Your task to perform on an android device: Open the calendar and show me this week's events? Image 0: 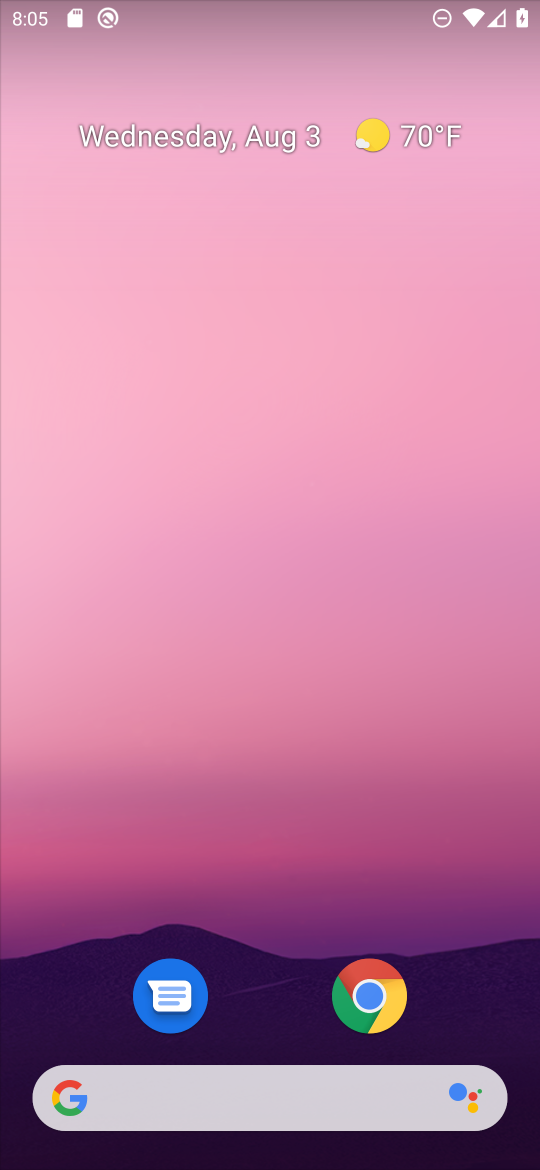
Step 0: drag from (254, 893) to (278, 1)
Your task to perform on an android device: Open the calendar and show me this week's events? Image 1: 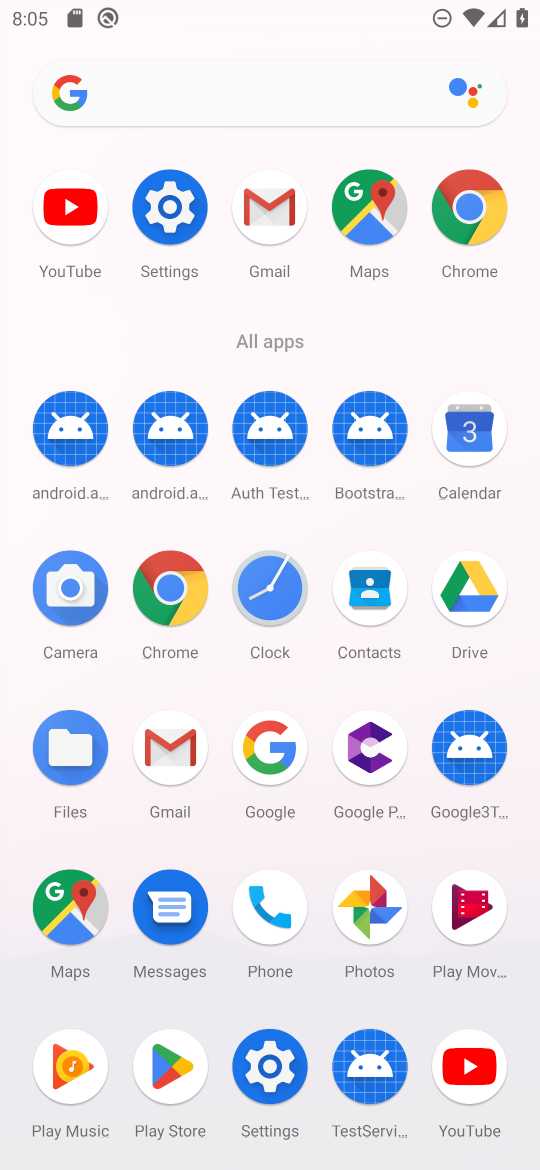
Step 1: click (472, 435)
Your task to perform on an android device: Open the calendar and show me this week's events? Image 2: 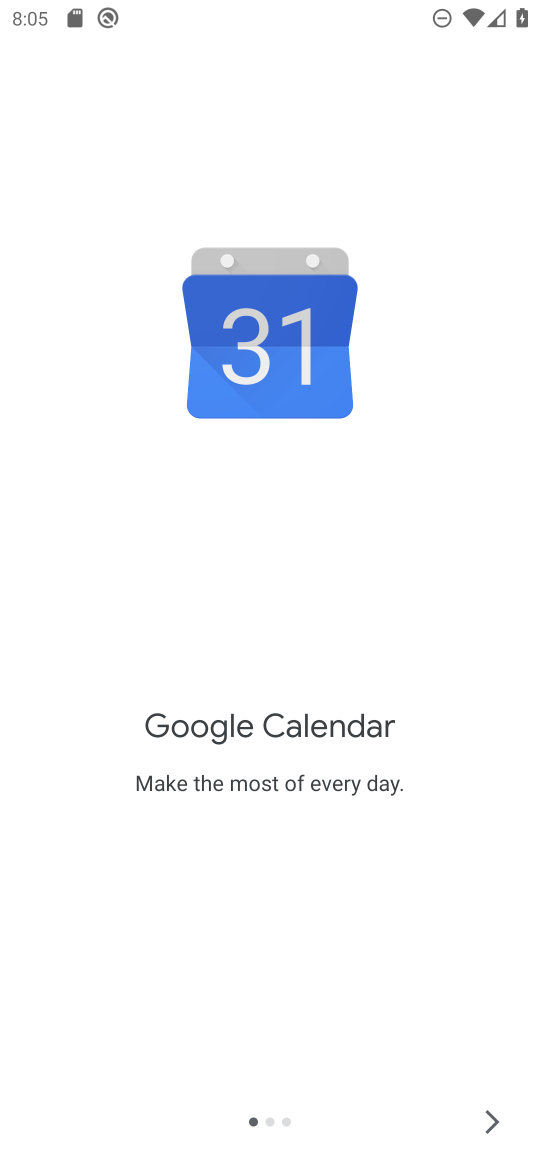
Step 2: click (490, 1114)
Your task to perform on an android device: Open the calendar and show me this week's events? Image 3: 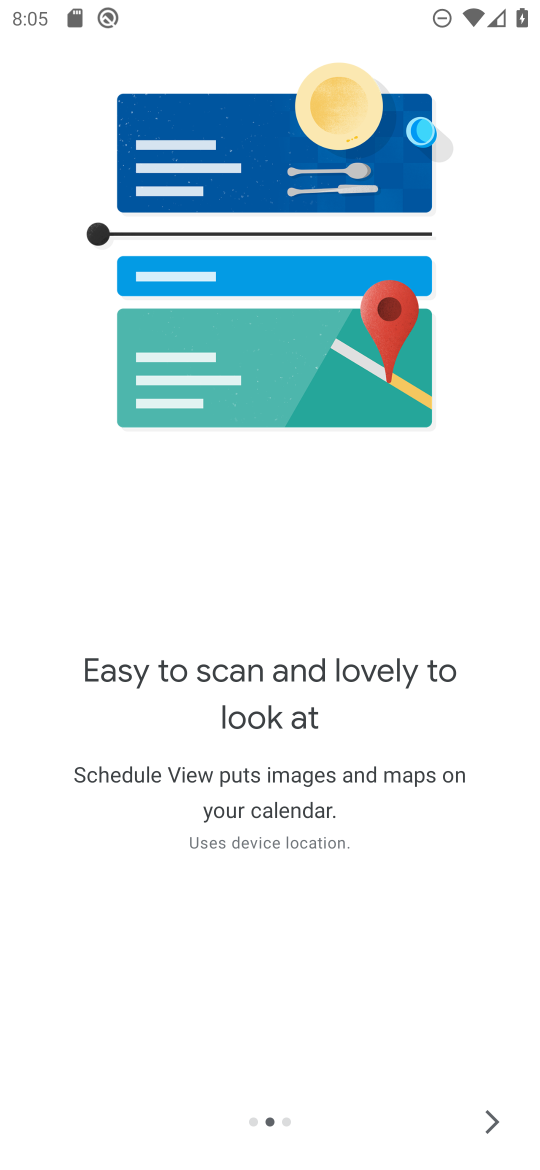
Step 3: click (490, 1114)
Your task to perform on an android device: Open the calendar and show me this week's events? Image 4: 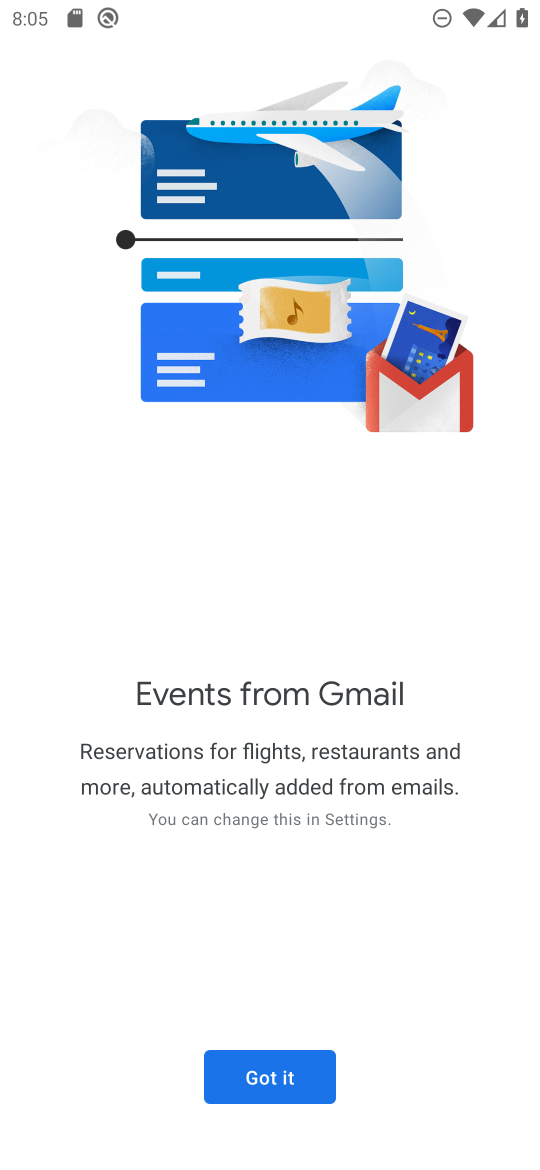
Step 4: click (319, 1069)
Your task to perform on an android device: Open the calendar and show me this week's events? Image 5: 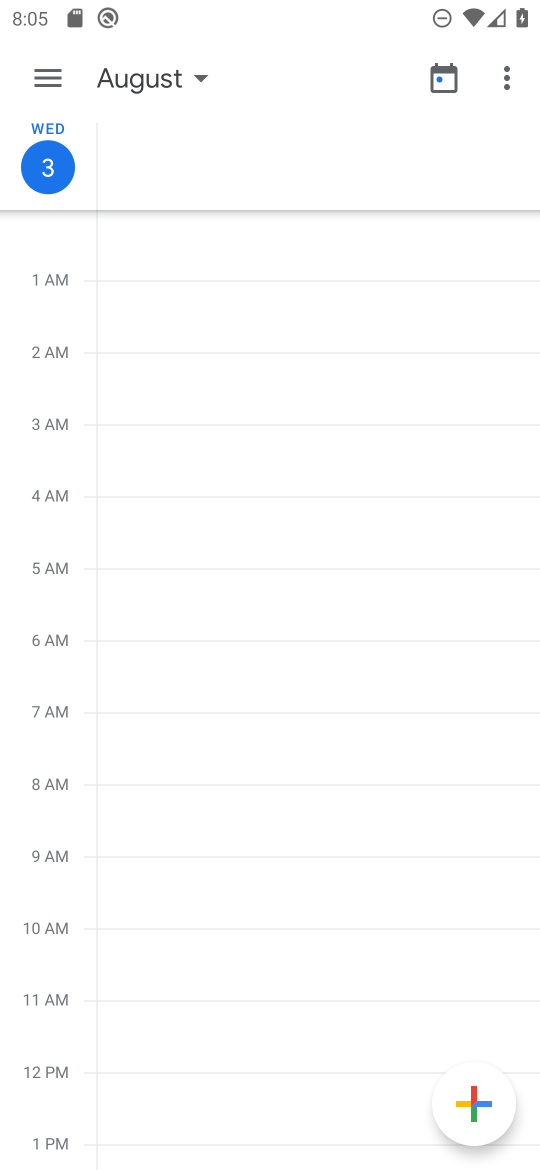
Step 5: click (47, 63)
Your task to perform on an android device: Open the calendar and show me this week's events? Image 6: 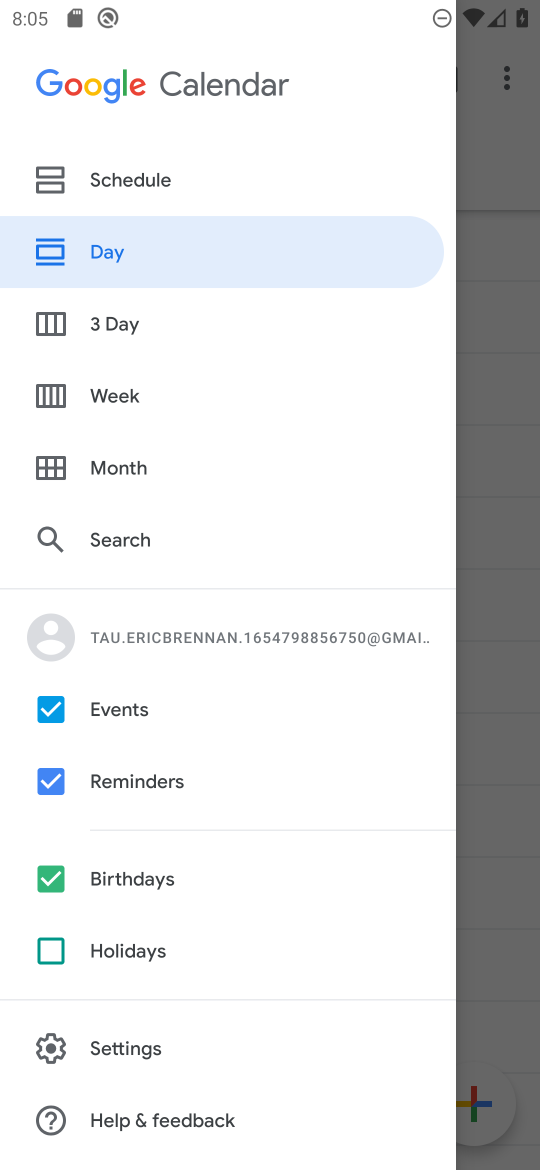
Step 6: click (57, 388)
Your task to perform on an android device: Open the calendar and show me this week's events? Image 7: 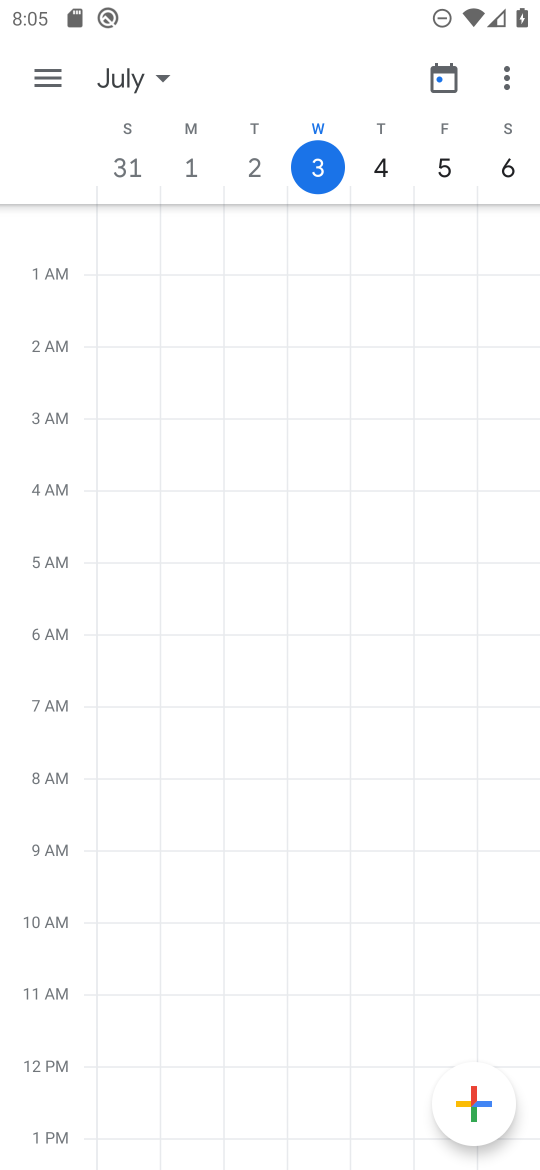
Step 7: task complete